Your task to perform on an android device: turn off smart reply in the gmail app Image 0: 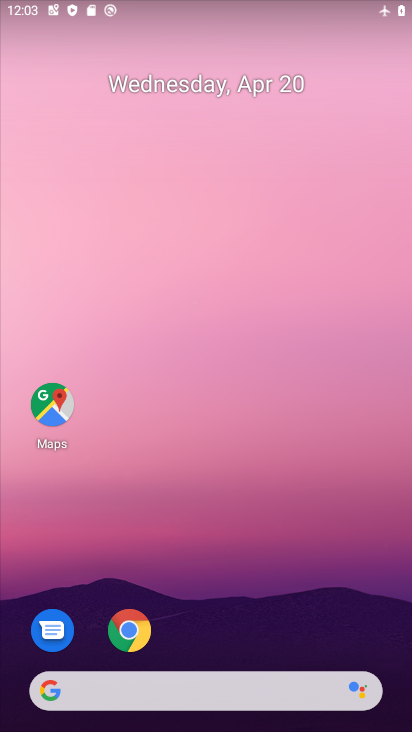
Step 0: drag from (170, 699) to (384, 202)
Your task to perform on an android device: turn off smart reply in the gmail app Image 1: 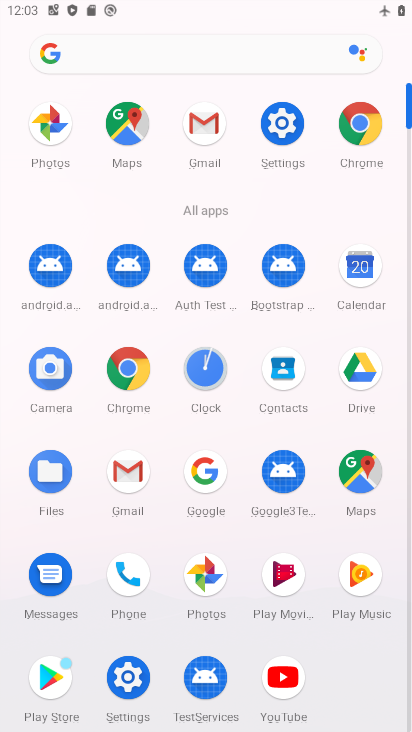
Step 1: click (205, 130)
Your task to perform on an android device: turn off smart reply in the gmail app Image 2: 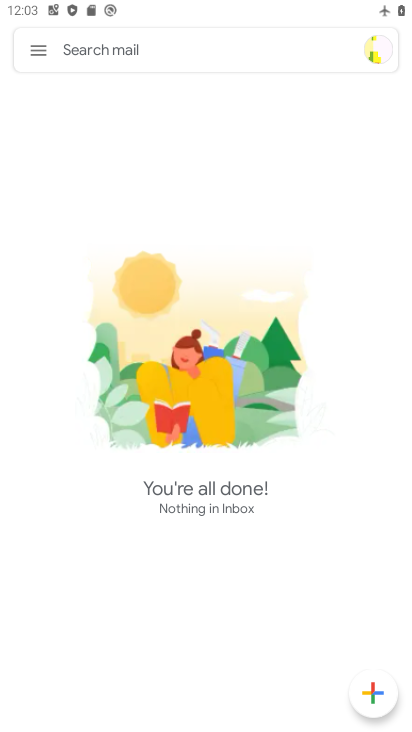
Step 2: click (37, 50)
Your task to perform on an android device: turn off smart reply in the gmail app Image 3: 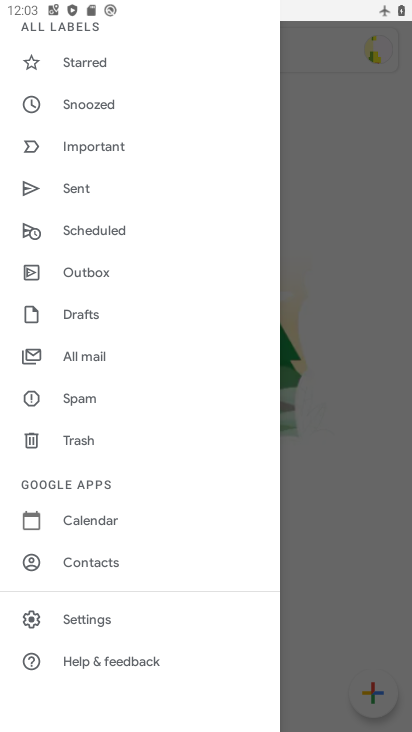
Step 3: click (85, 621)
Your task to perform on an android device: turn off smart reply in the gmail app Image 4: 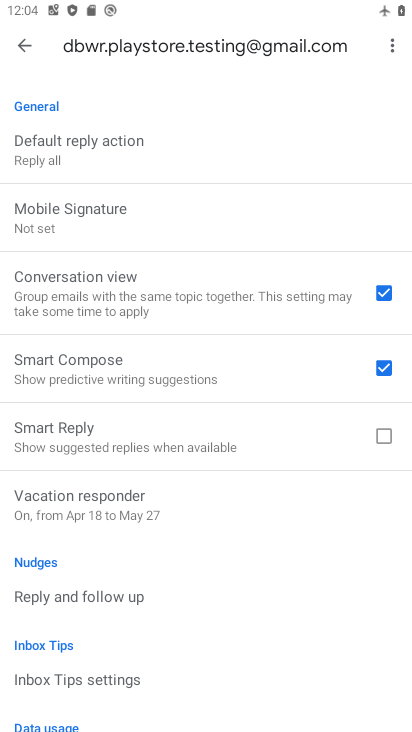
Step 4: task complete